Your task to perform on an android device: Open location settings Image 0: 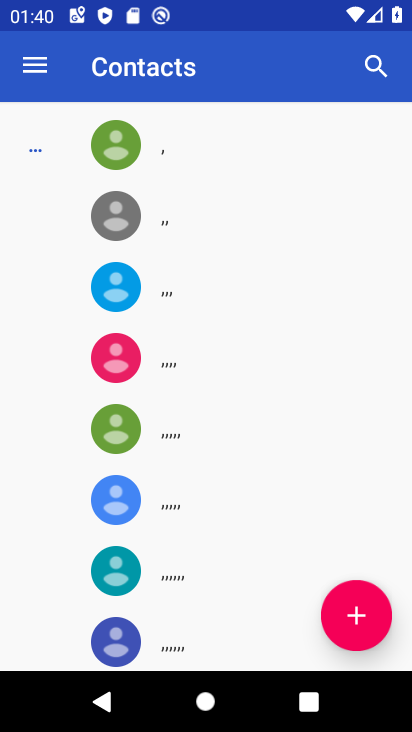
Step 0: press home button
Your task to perform on an android device: Open location settings Image 1: 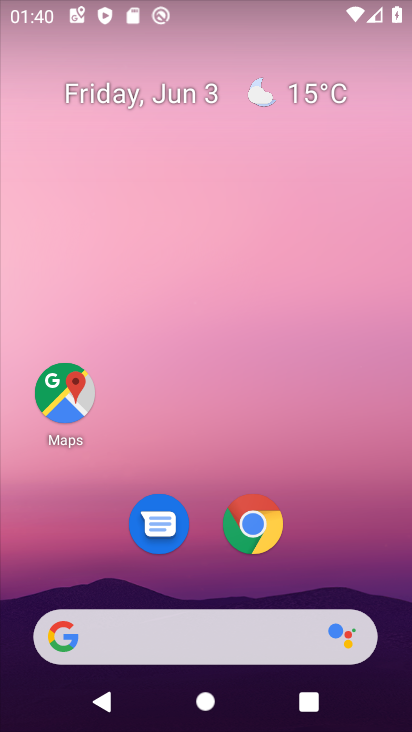
Step 1: drag from (302, 531) to (351, 0)
Your task to perform on an android device: Open location settings Image 2: 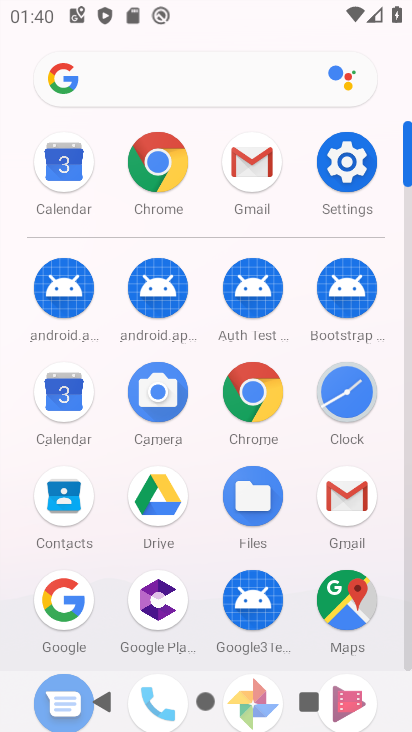
Step 2: click (337, 165)
Your task to perform on an android device: Open location settings Image 3: 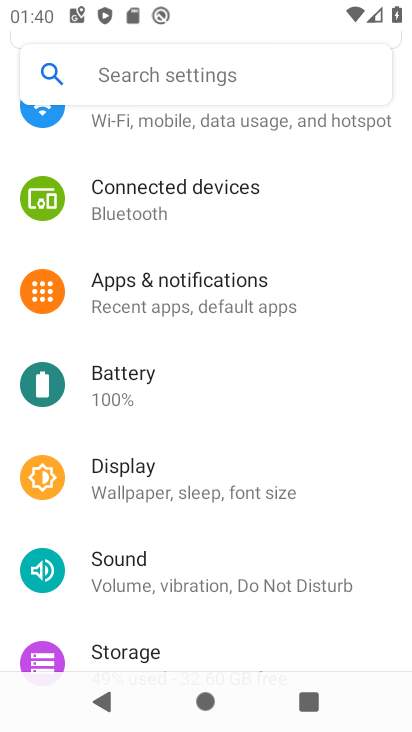
Step 3: drag from (231, 513) to (270, 159)
Your task to perform on an android device: Open location settings Image 4: 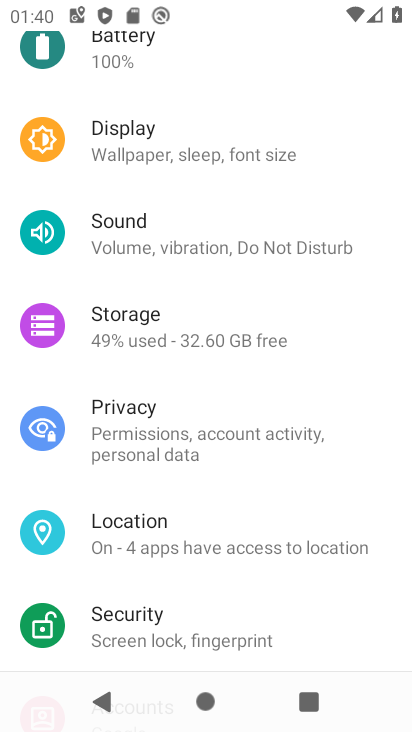
Step 4: click (224, 545)
Your task to perform on an android device: Open location settings Image 5: 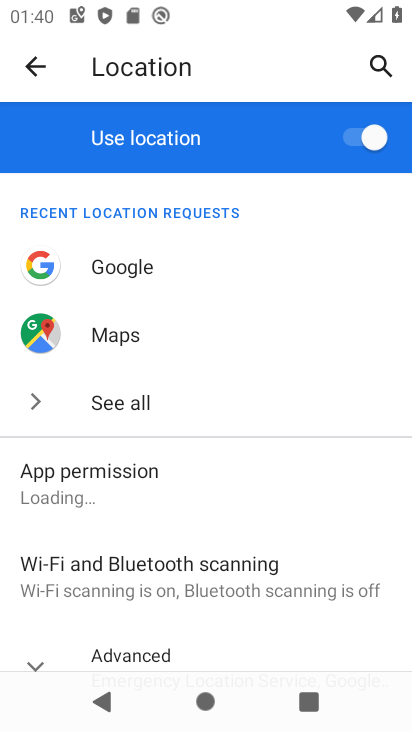
Step 5: task complete